Your task to perform on an android device: Open notification settings Image 0: 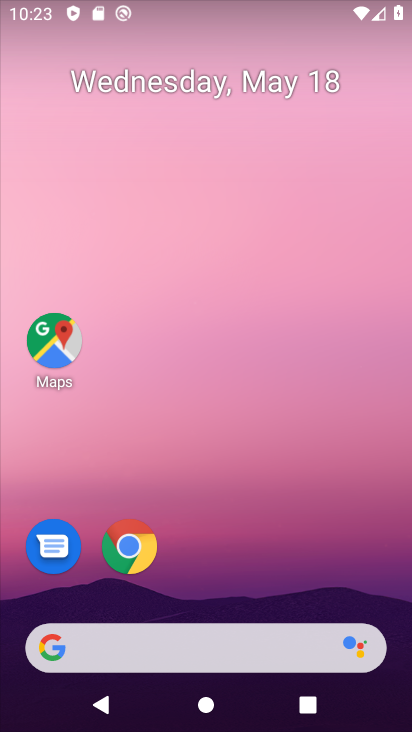
Step 0: drag from (216, 721) to (200, 175)
Your task to perform on an android device: Open notification settings Image 1: 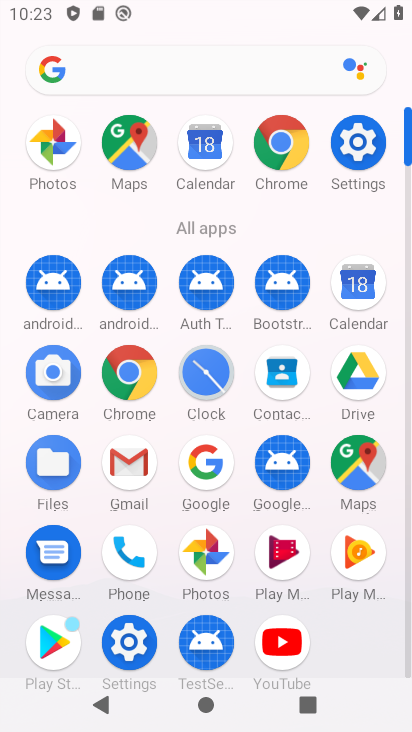
Step 1: click (360, 145)
Your task to perform on an android device: Open notification settings Image 2: 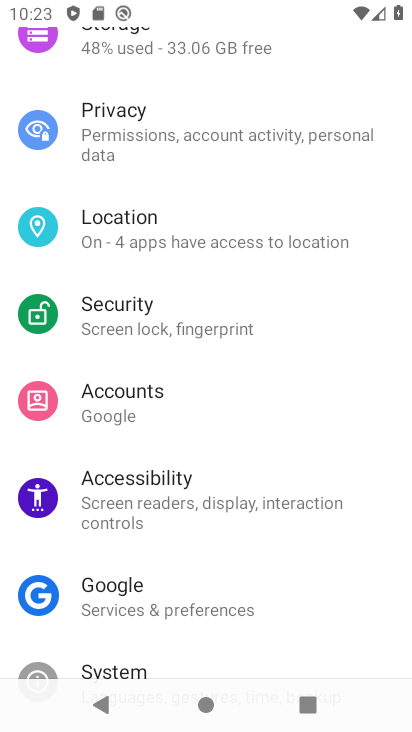
Step 2: drag from (194, 156) to (183, 588)
Your task to perform on an android device: Open notification settings Image 3: 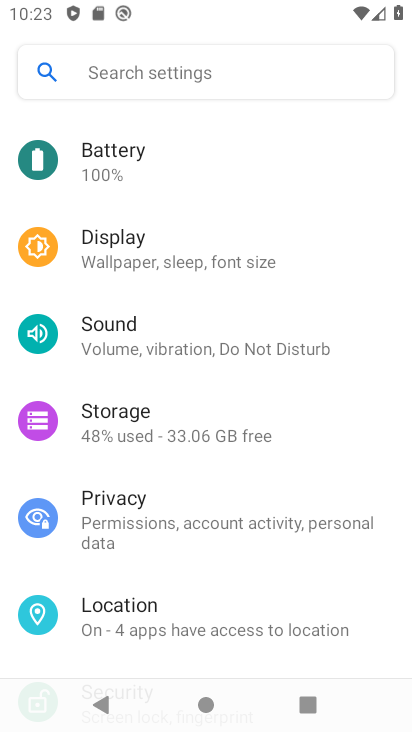
Step 3: drag from (216, 185) to (224, 581)
Your task to perform on an android device: Open notification settings Image 4: 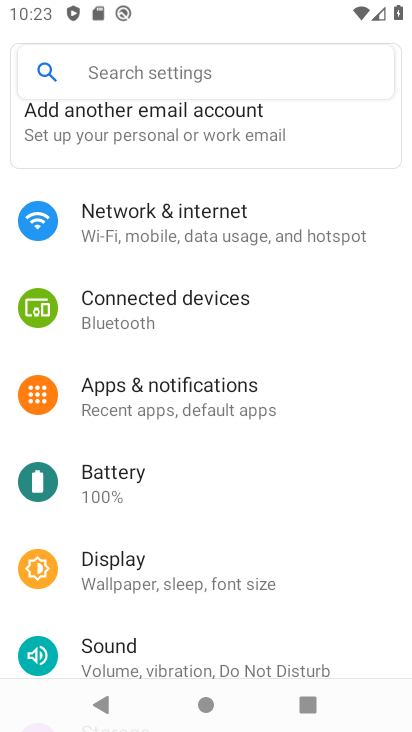
Step 4: click (194, 400)
Your task to perform on an android device: Open notification settings Image 5: 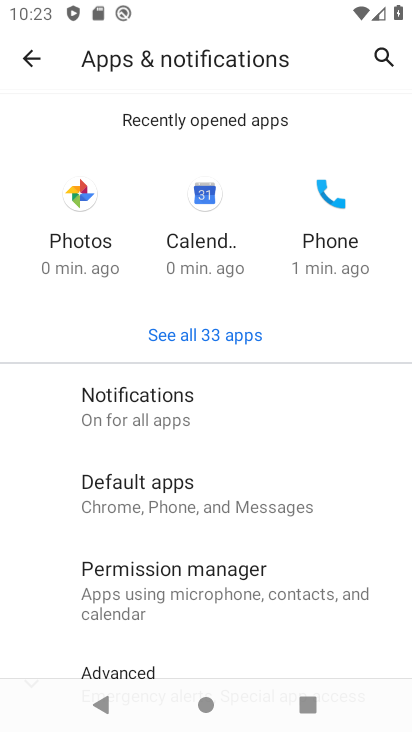
Step 5: click (144, 414)
Your task to perform on an android device: Open notification settings Image 6: 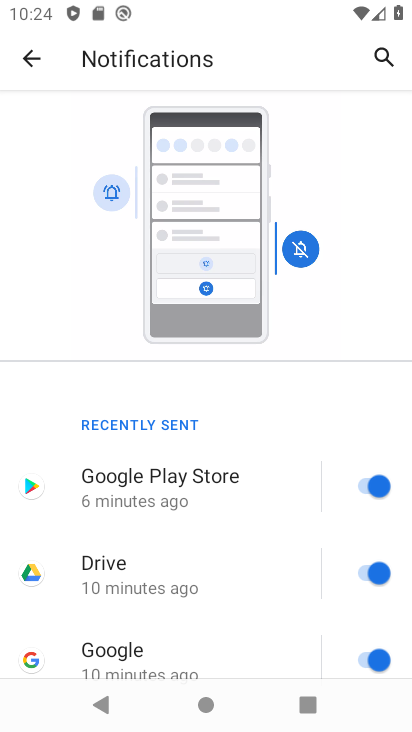
Step 6: task complete